Your task to perform on an android device: turn on wifi Image 0: 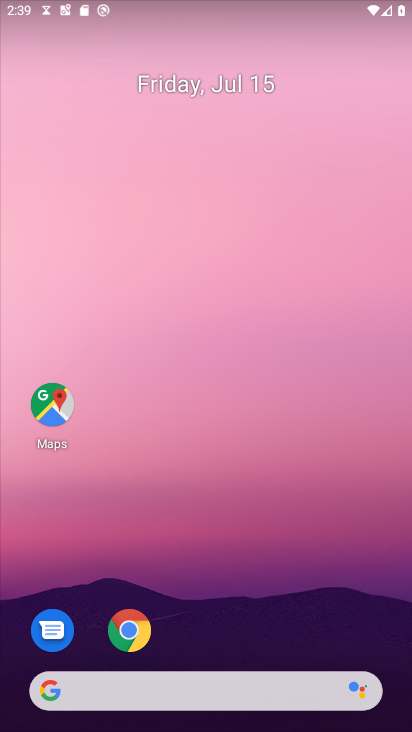
Step 0: drag from (270, 545) to (327, 0)
Your task to perform on an android device: turn on wifi Image 1: 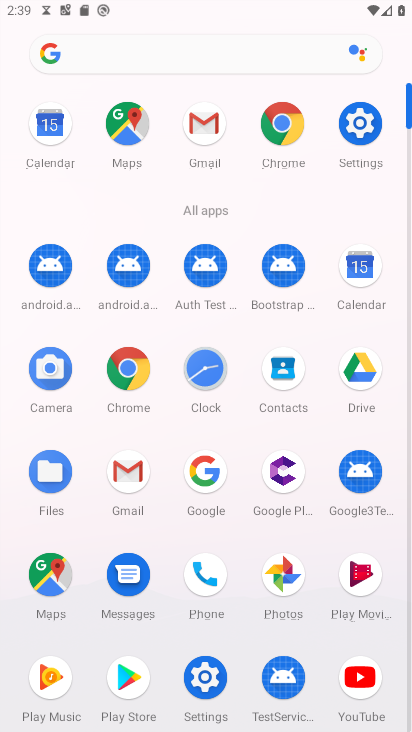
Step 1: click (356, 126)
Your task to perform on an android device: turn on wifi Image 2: 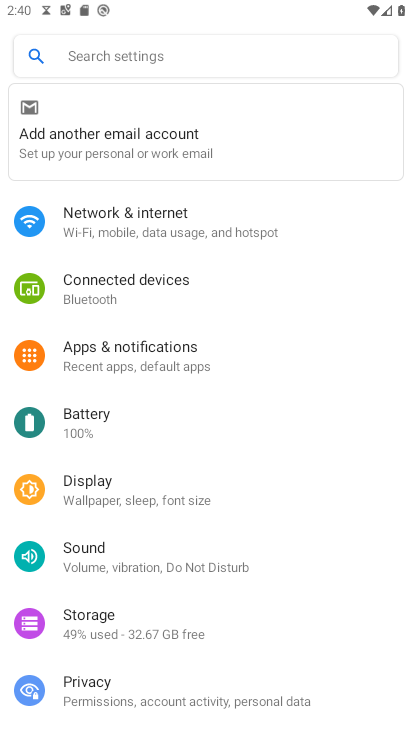
Step 2: click (75, 228)
Your task to perform on an android device: turn on wifi Image 3: 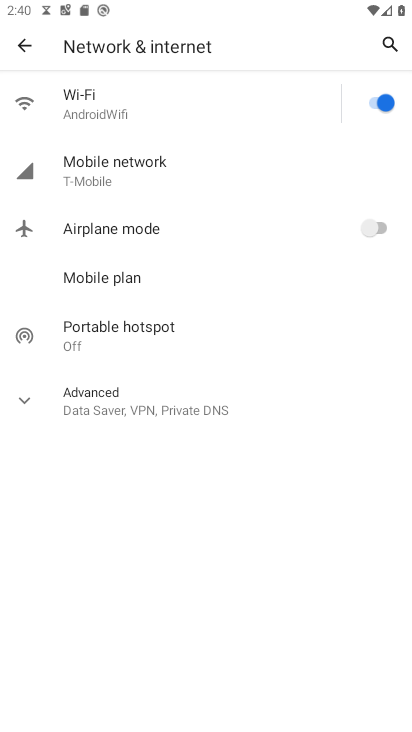
Step 3: click (373, 101)
Your task to perform on an android device: turn on wifi Image 4: 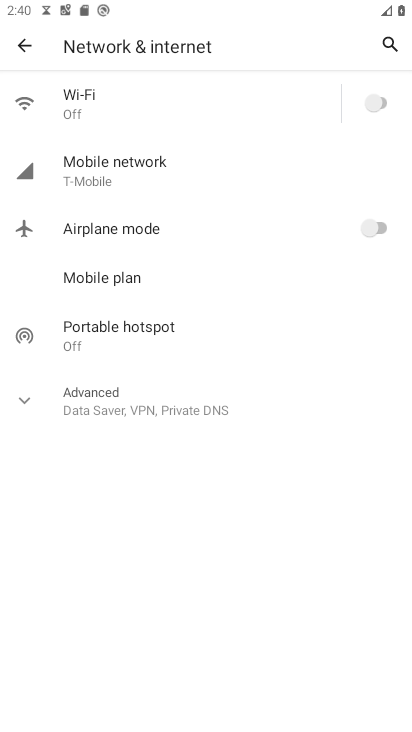
Step 4: click (373, 101)
Your task to perform on an android device: turn on wifi Image 5: 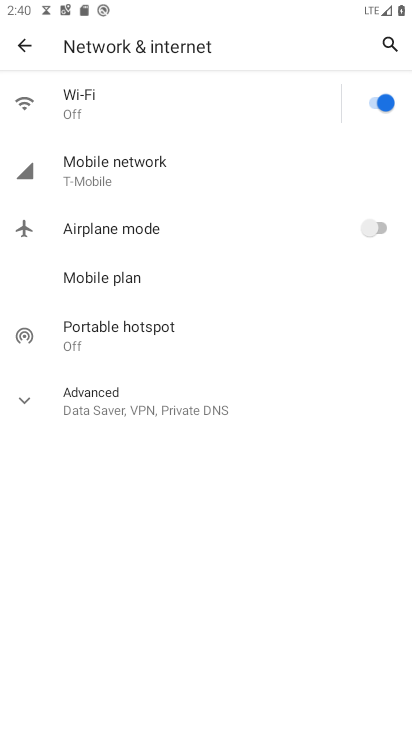
Step 5: click (373, 101)
Your task to perform on an android device: turn on wifi Image 6: 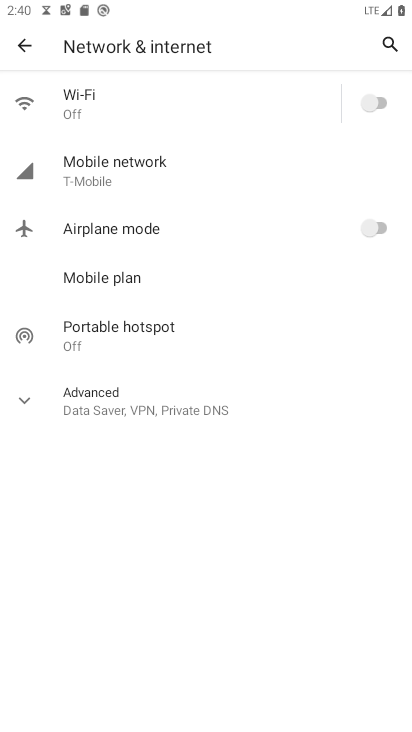
Step 6: click (370, 93)
Your task to perform on an android device: turn on wifi Image 7: 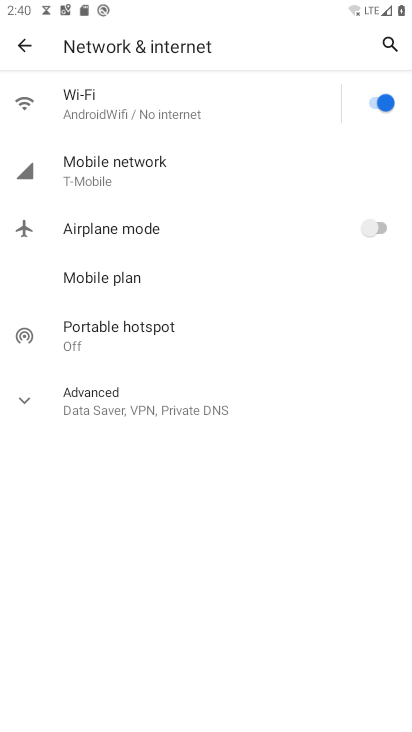
Step 7: task complete